Your task to perform on an android device: turn on showing notifications on the lock screen Image 0: 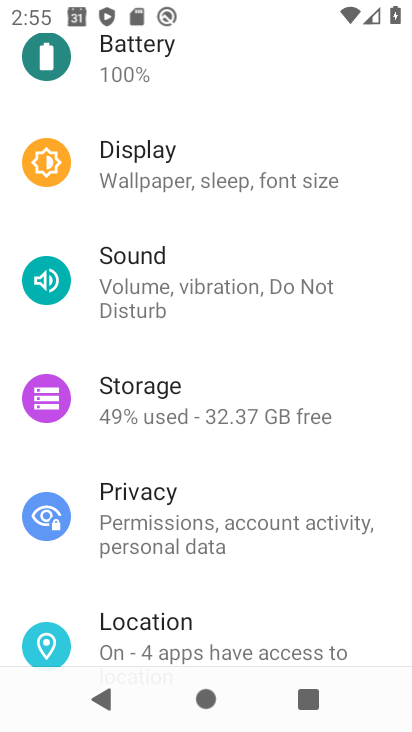
Step 0: drag from (182, 167) to (121, 593)
Your task to perform on an android device: turn on showing notifications on the lock screen Image 1: 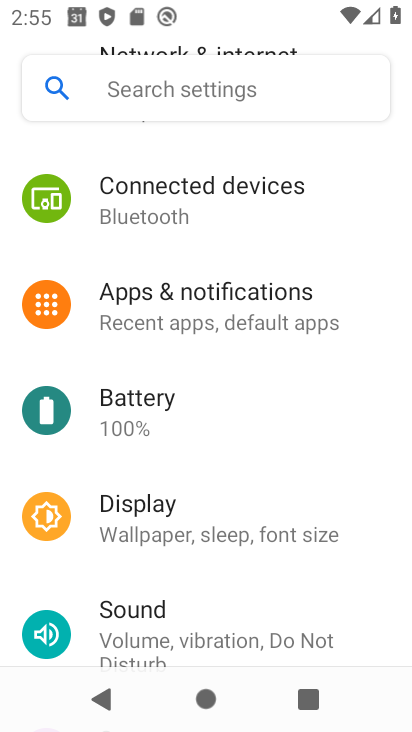
Step 1: click (180, 300)
Your task to perform on an android device: turn on showing notifications on the lock screen Image 2: 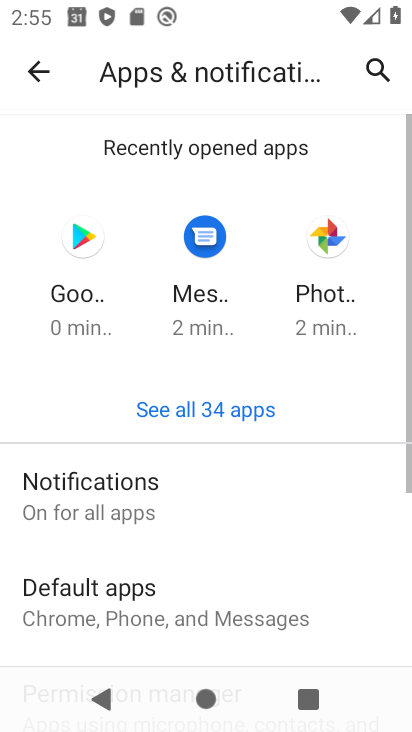
Step 2: click (134, 488)
Your task to perform on an android device: turn on showing notifications on the lock screen Image 3: 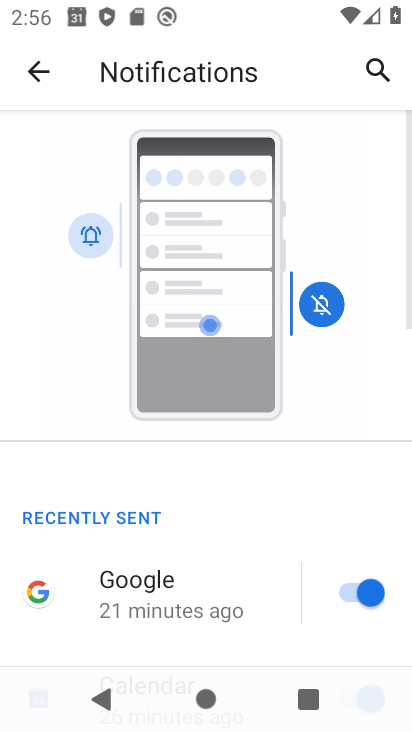
Step 3: drag from (241, 537) to (253, 31)
Your task to perform on an android device: turn on showing notifications on the lock screen Image 4: 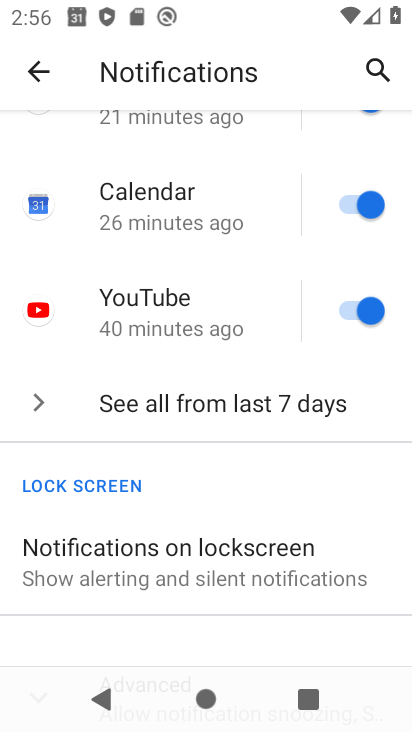
Step 4: click (191, 564)
Your task to perform on an android device: turn on showing notifications on the lock screen Image 5: 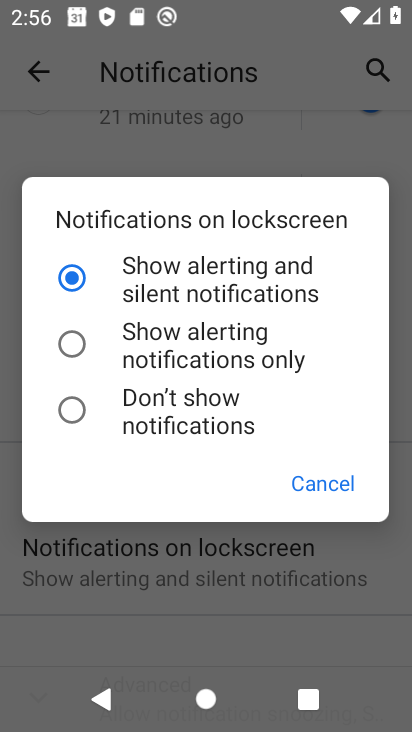
Step 5: click (205, 347)
Your task to perform on an android device: turn on showing notifications on the lock screen Image 6: 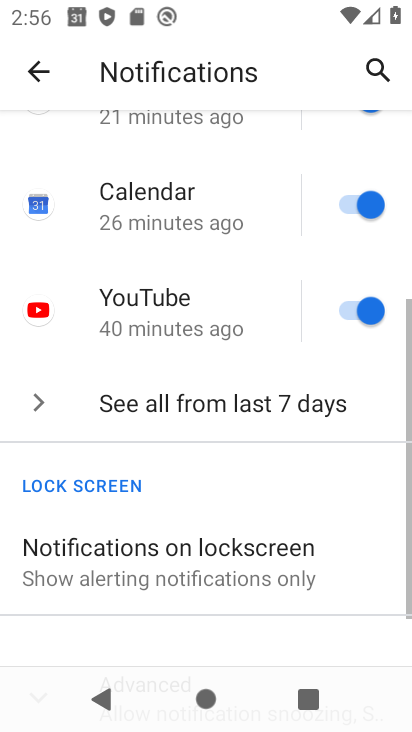
Step 6: task complete